Your task to perform on an android device: turn off smart reply in the gmail app Image 0: 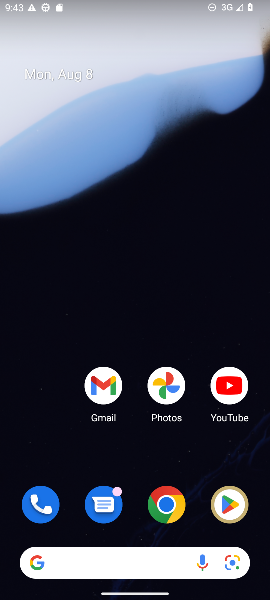
Step 0: click (114, 408)
Your task to perform on an android device: turn off smart reply in the gmail app Image 1: 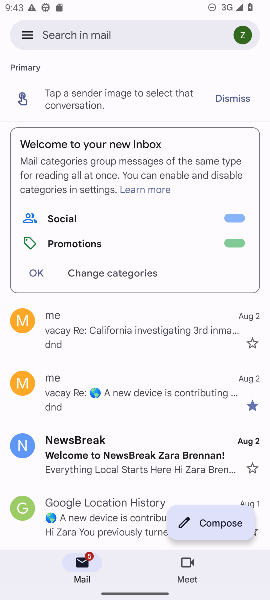
Step 1: click (29, 34)
Your task to perform on an android device: turn off smart reply in the gmail app Image 2: 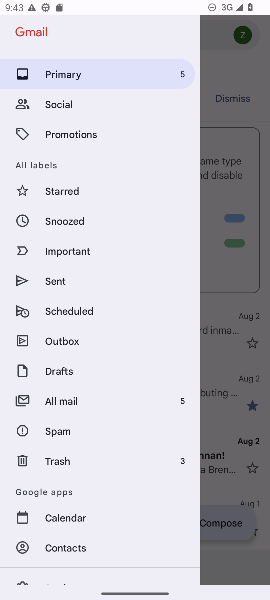
Step 2: drag from (81, 413) to (118, 97)
Your task to perform on an android device: turn off smart reply in the gmail app Image 3: 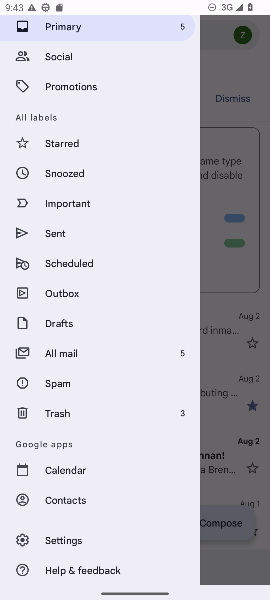
Step 3: click (72, 544)
Your task to perform on an android device: turn off smart reply in the gmail app Image 4: 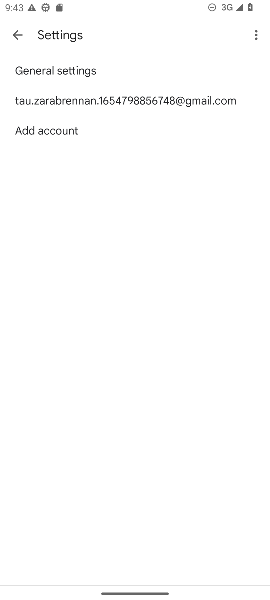
Step 4: click (102, 92)
Your task to perform on an android device: turn off smart reply in the gmail app Image 5: 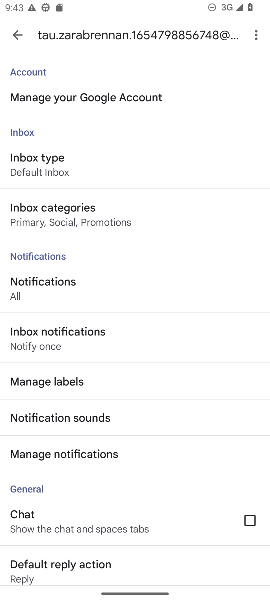
Step 5: drag from (70, 405) to (92, 244)
Your task to perform on an android device: turn off smart reply in the gmail app Image 6: 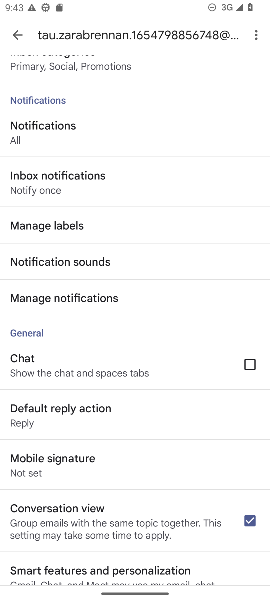
Step 6: drag from (46, 442) to (81, 225)
Your task to perform on an android device: turn off smart reply in the gmail app Image 7: 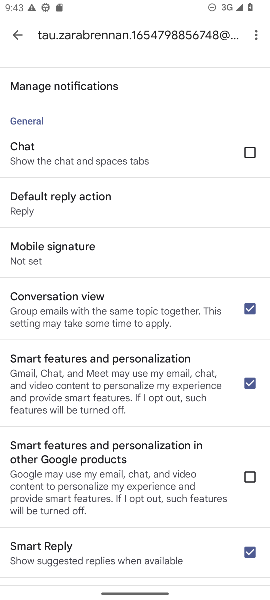
Step 7: drag from (146, 501) to (154, 371)
Your task to perform on an android device: turn off smart reply in the gmail app Image 8: 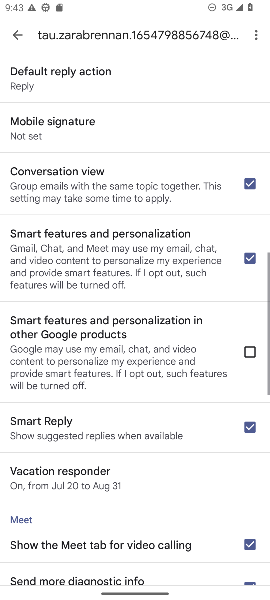
Step 8: click (210, 427)
Your task to perform on an android device: turn off smart reply in the gmail app Image 9: 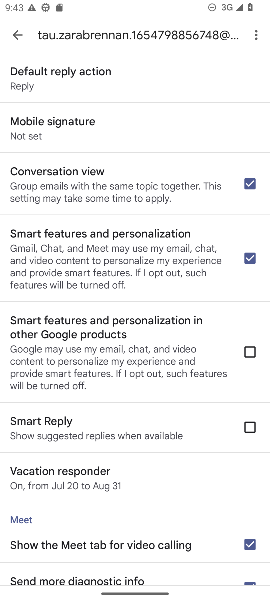
Step 9: task complete